Your task to perform on an android device: Go to location settings Image 0: 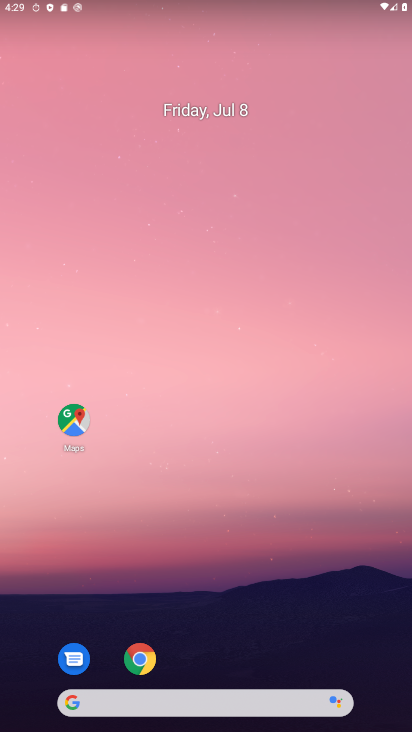
Step 0: click (280, 158)
Your task to perform on an android device: Go to location settings Image 1: 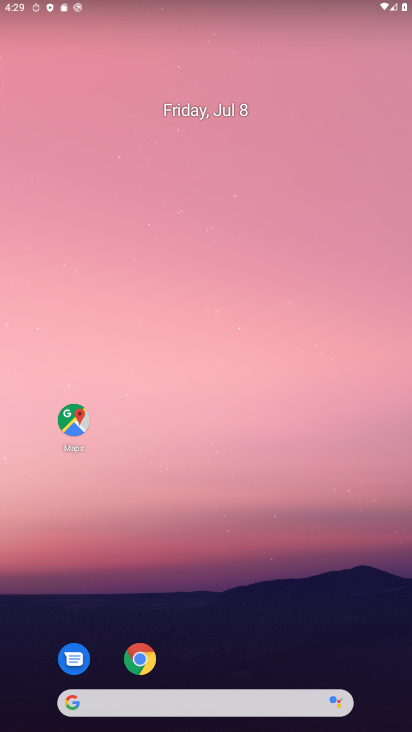
Step 1: drag from (254, 606) to (224, 139)
Your task to perform on an android device: Go to location settings Image 2: 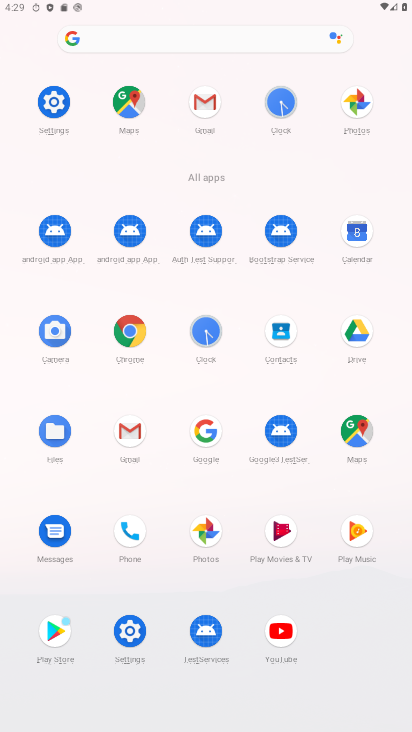
Step 2: click (61, 100)
Your task to perform on an android device: Go to location settings Image 3: 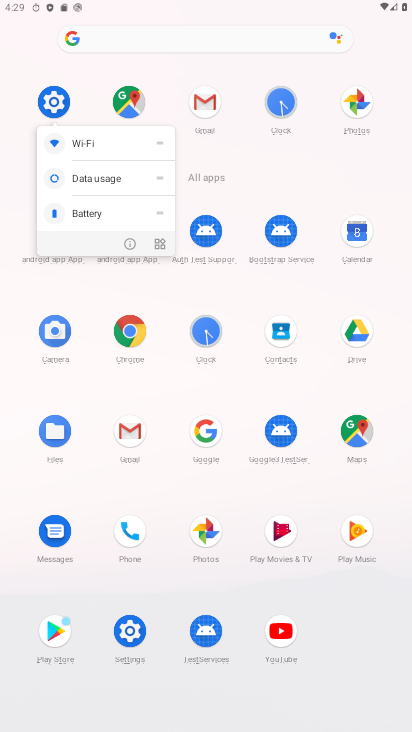
Step 3: click (52, 98)
Your task to perform on an android device: Go to location settings Image 4: 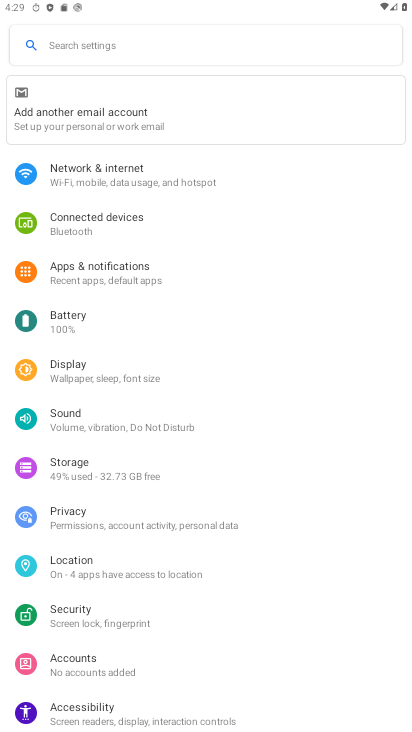
Step 4: click (132, 565)
Your task to perform on an android device: Go to location settings Image 5: 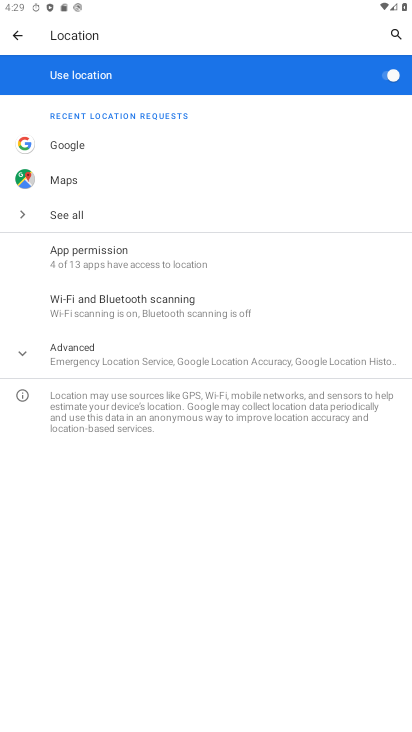
Step 5: task complete